Your task to perform on an android device: What is the recent news? Image 0: 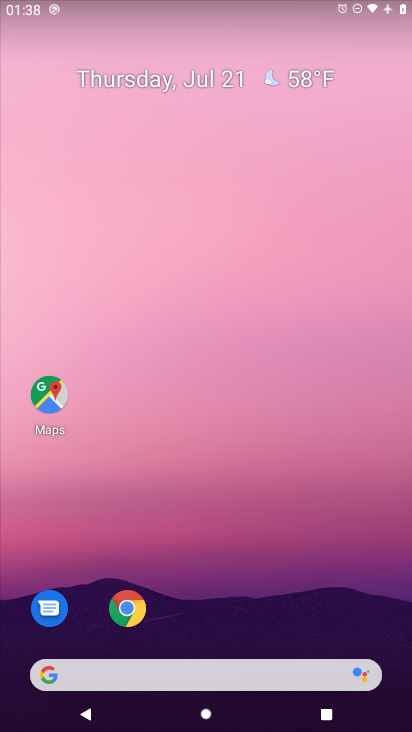
Step 0: press home button
Your task to perform on an android device: What is the recent news? Image 1: 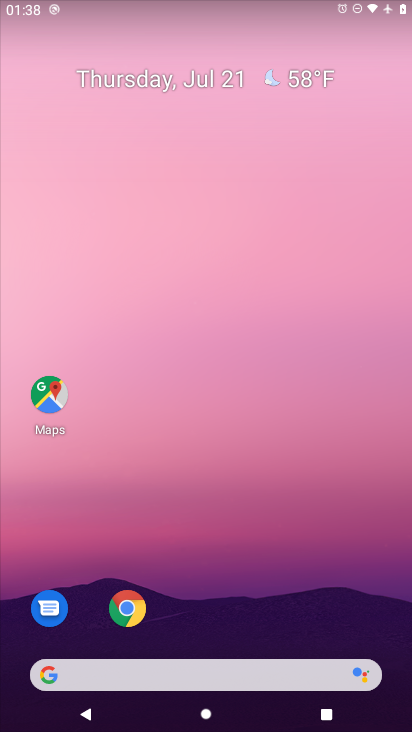
Step 1: click (42, 681)
Your task to perform on an android device: What is the recent news? Image 2: 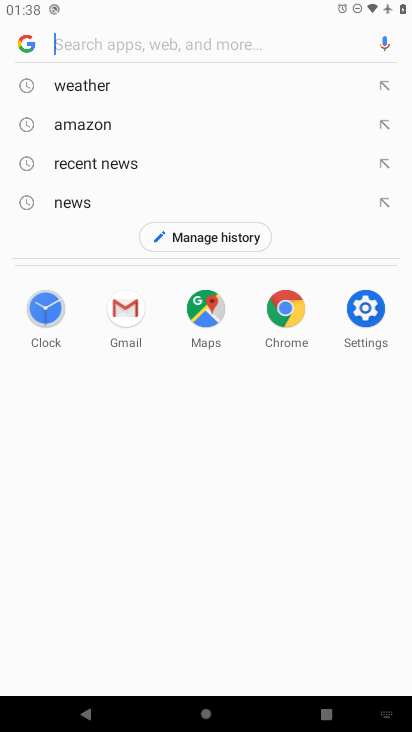
Step 2: click (81, 170)
Your task to perform on an android device: What is the recent news? Image 3: 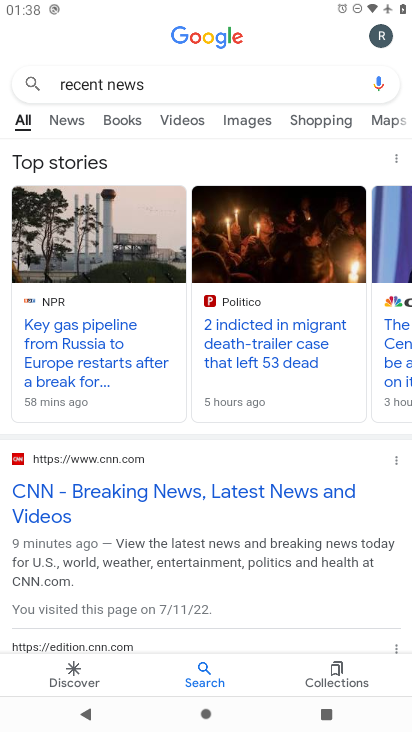
Step 3: task complete